Your task to perform on an android device: turn off smart reply in the gmail app Image 0: 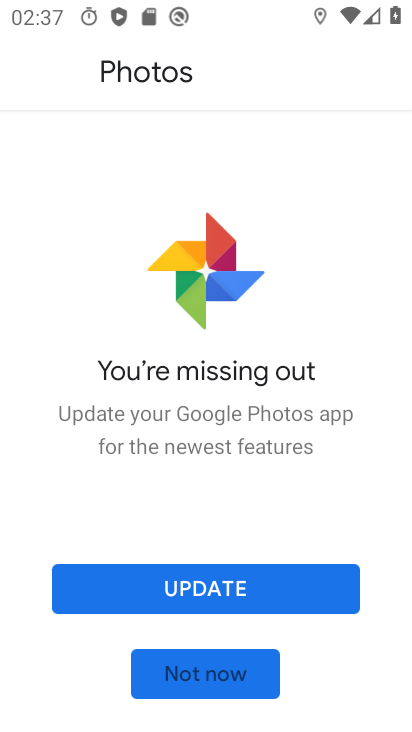
Step 0: press home button
Your task to perform on an android device: turn off smart reply in the gmail app Image 1: 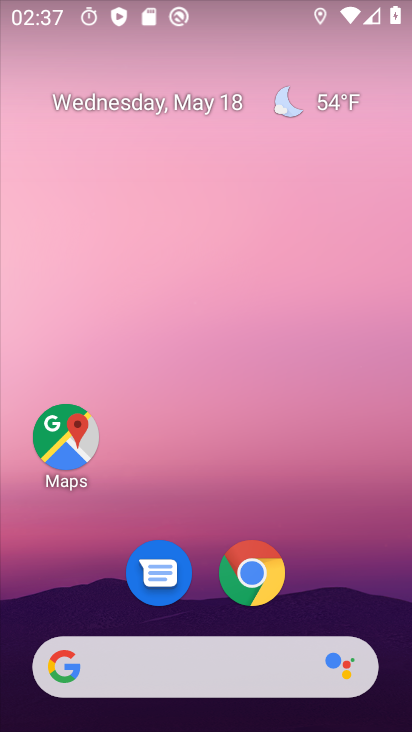
Step 1: drag from (202, 616) to (201, 227)
Your task to perform on an android device: turn off smart reply in the gmail app Image 2: 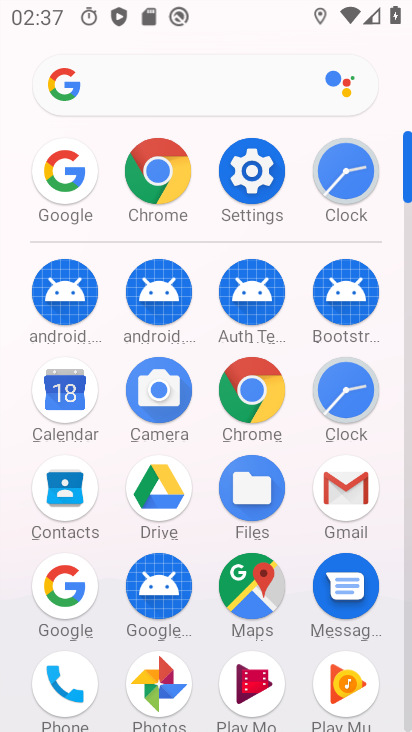
Step 2: click (329, 479)
Your task to perform on an android device: turn off smart reply in the gmail app Image 3: 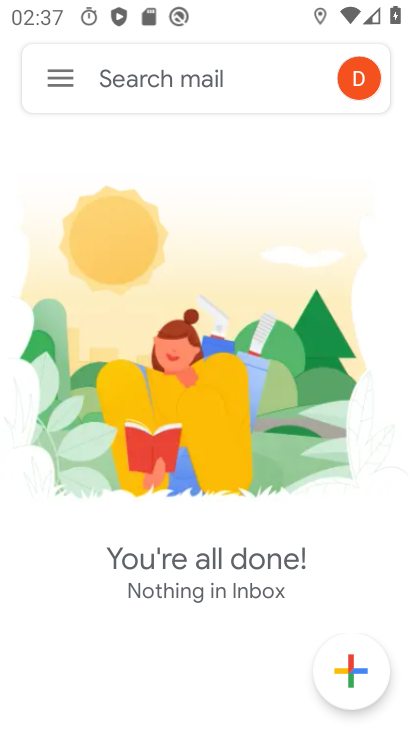
Step 3: click (48, 73)
Your task to perform on an android device: turn off smart reply in the gmail app Image 4: 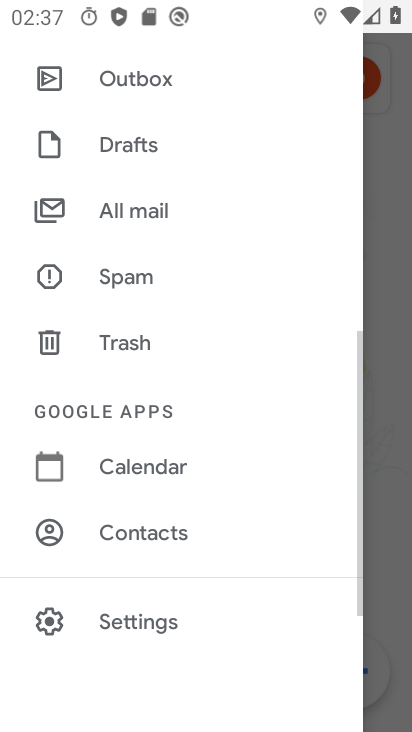
Step 4: click (160, 606)
Your task to perform on an android device: turn off smart reply in the gmail app Image 5: 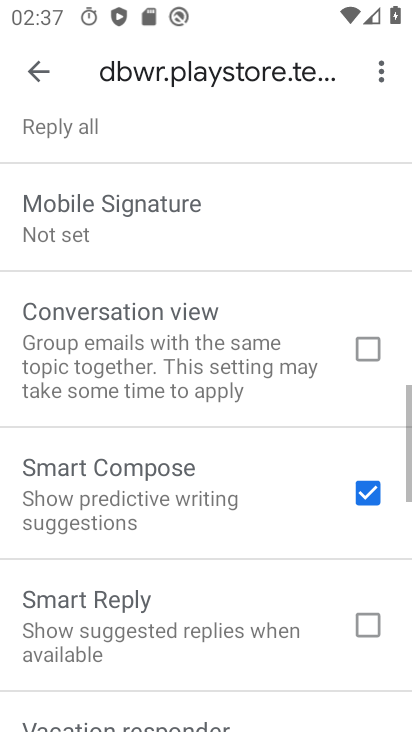
Step 5: drag from (182, 519) to (217, 318)
Your task to perform on an android device: turn off smart reply in the gmail app Image 6: 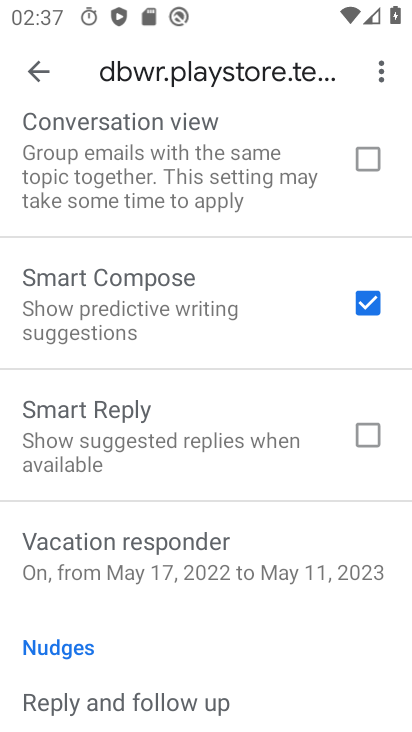
Step 6: click (359, 435)
Your task to perform on an android device: turn off smart reply in the gmail app Image 7: 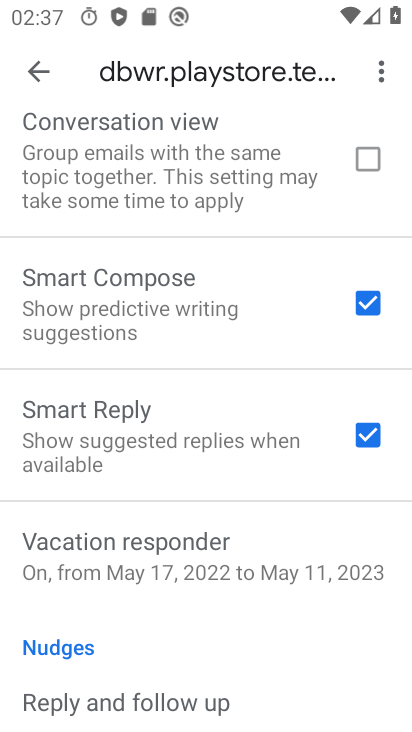
Step 7: click (351, 425)
Your task to perform on an android device: turn off smart reply in the gmail app Image 8: 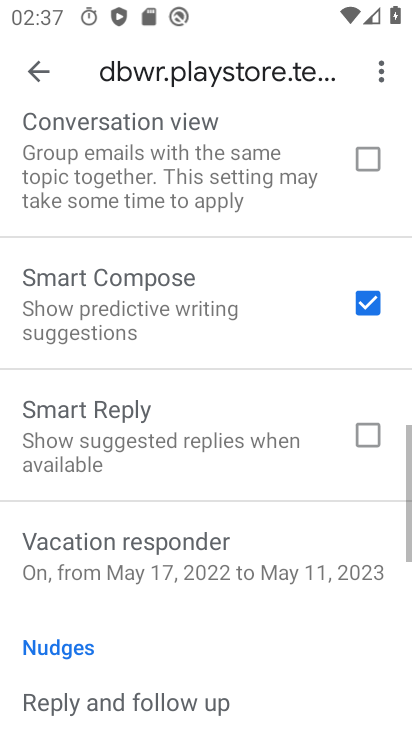
Step 8: task complete